Your task to perform on an android device: Show me recent news Image 0: 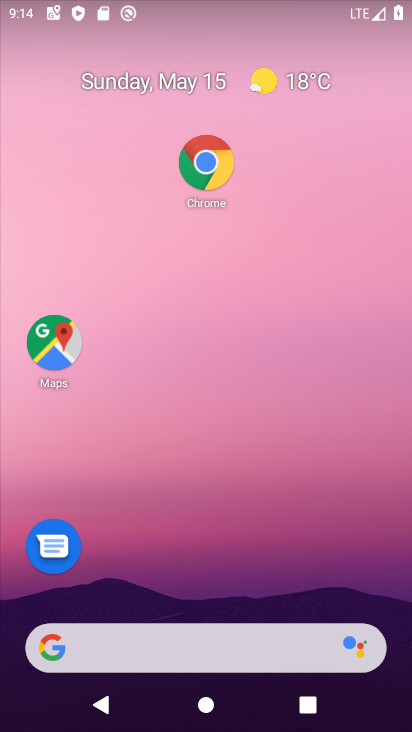
Step 0: drag from (212, 593) to (295, 201)
Your task to perform on an android device: Show me recent news Image 1: 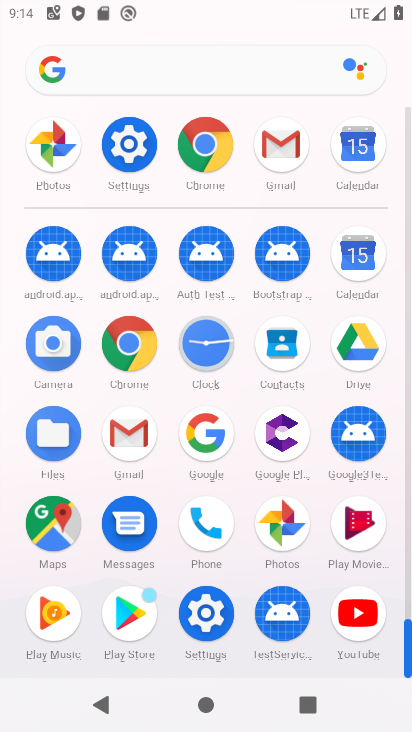
Step 1: click (179, 150)
Your task to perform on an android device: Show me recent news Image 2: 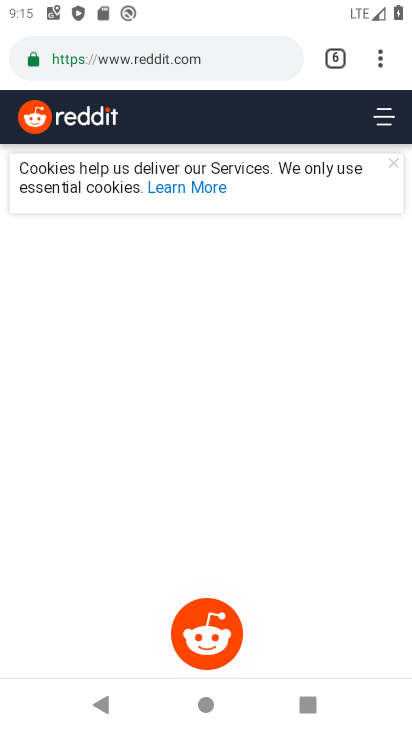
Step 2: click (363, 55)
Your task to perform on an android device: Show me recent news Image 3: 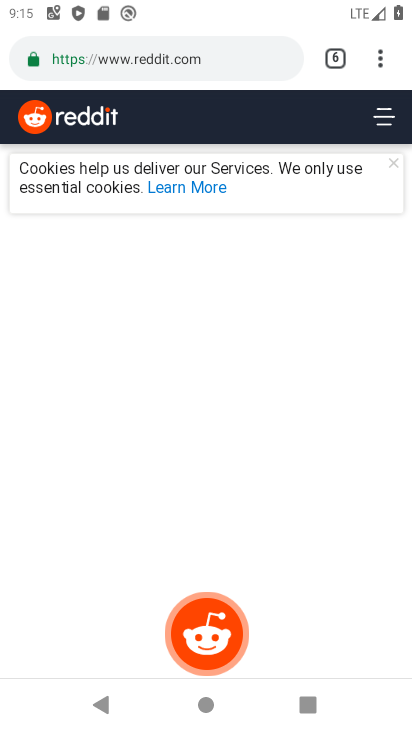
Step 3: click (393, 50)
Your task to perform on an android device: Show me recent news Image 4: 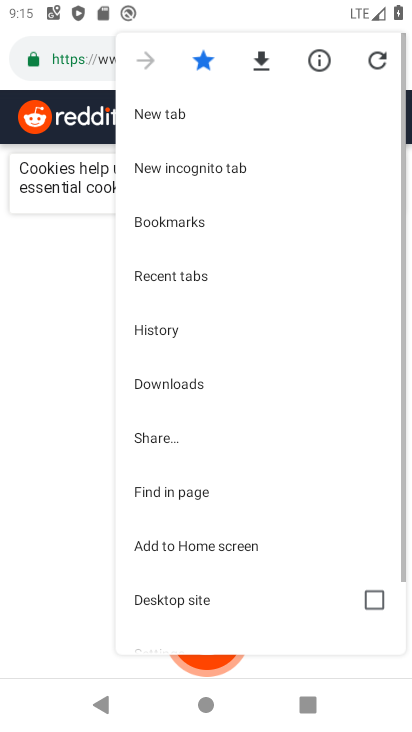
Step 4: click (179, 114)
Your task to perform on an android device: Show me recent news Image 5: 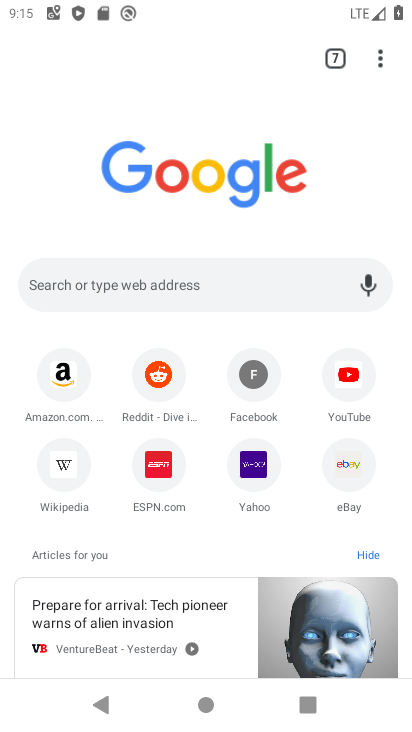
Step 5: click (123, 281)
Your task to perform on an android device: Show me recent news Image 6: 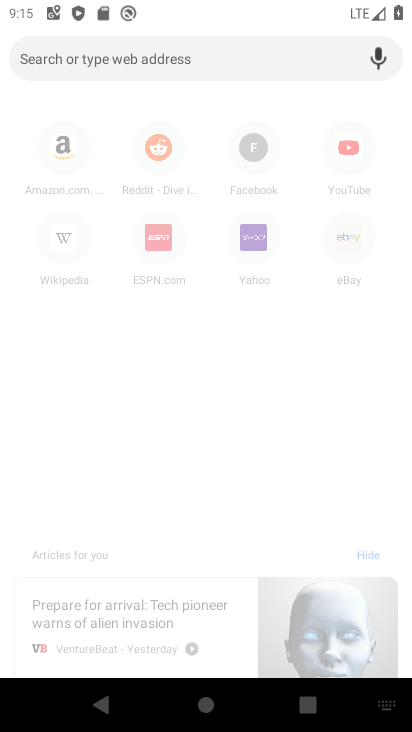
Step 6: type "Show me recent news"
Your task to perform on an android device: Show me recent news Image 7: 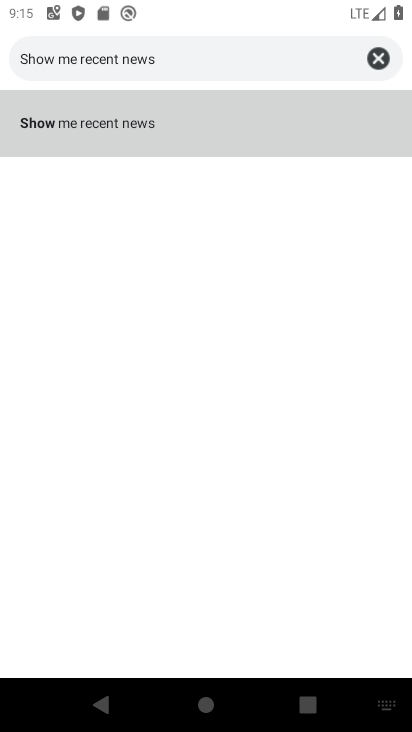
Step 7: click (171, 92)
Your task to perform on an android device: Show me recent news Image 8: 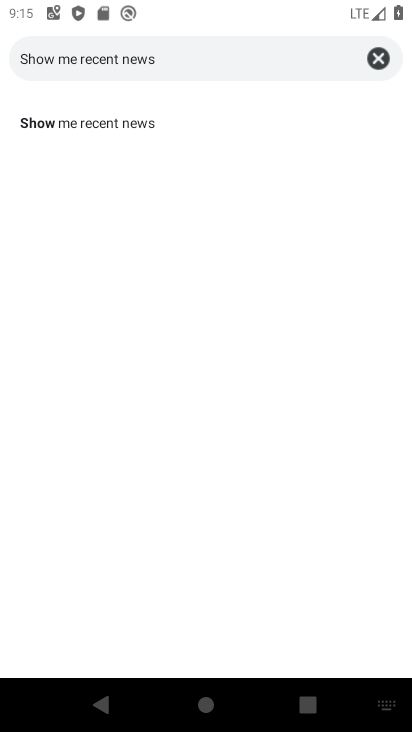
Step 8: click (170, 114)
Your task to perform on an android device: Show me recent news Image 9: 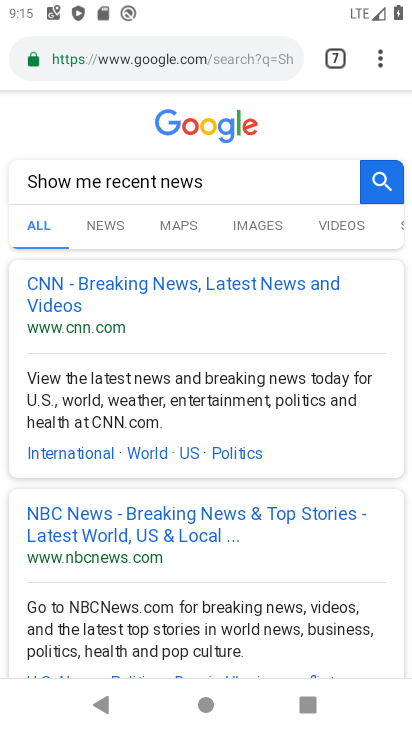
Step 9: task complete